Your task to perform on an android device: What is the recent news? Image 0: 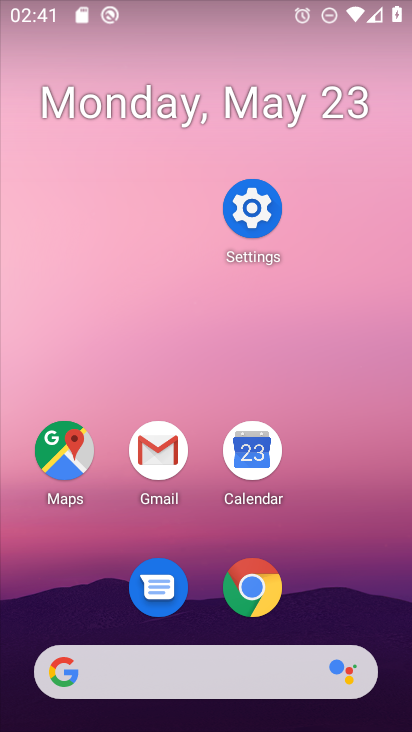
Step 0: click (244, 664)
Your task to perform on an android device: What is the recent news? Image 1: 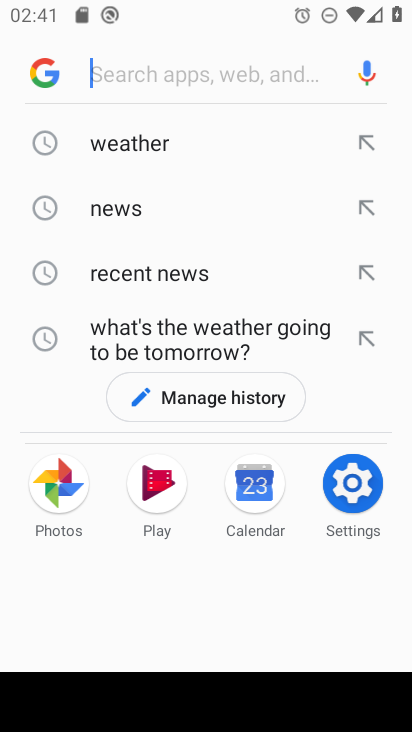
Step 1: click (172, 285)
Your task to perform on an android device: What is the recent news? Image 2: 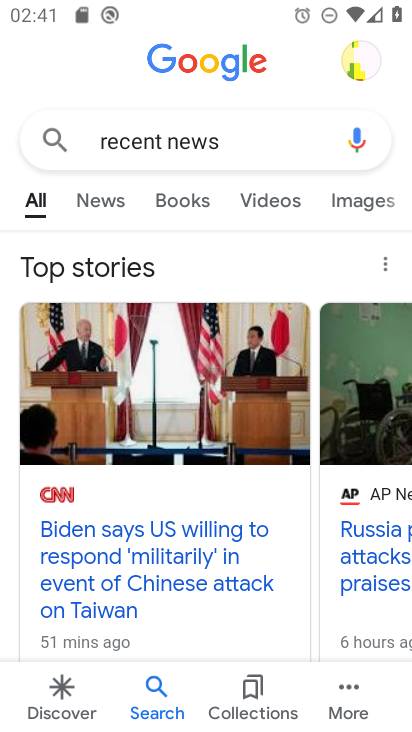
Step 2: task complete